Your task to perform on an android device: empty trash in the gmail app Image 0: 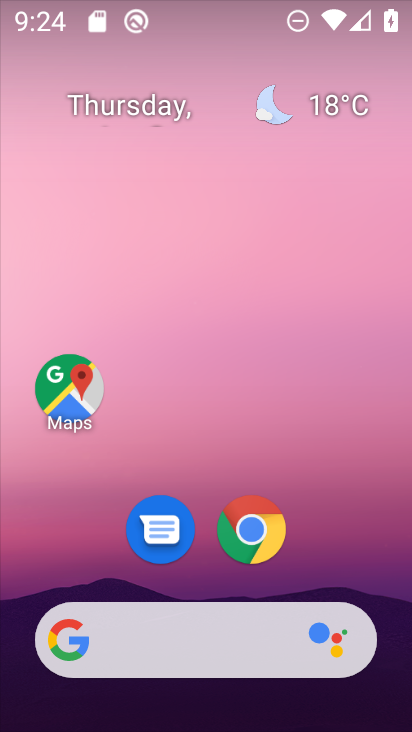
Step 0: drag from (400, 720) to (375, 310)
Your task to perform on an android device: empty trash in the gmail app Image 1: 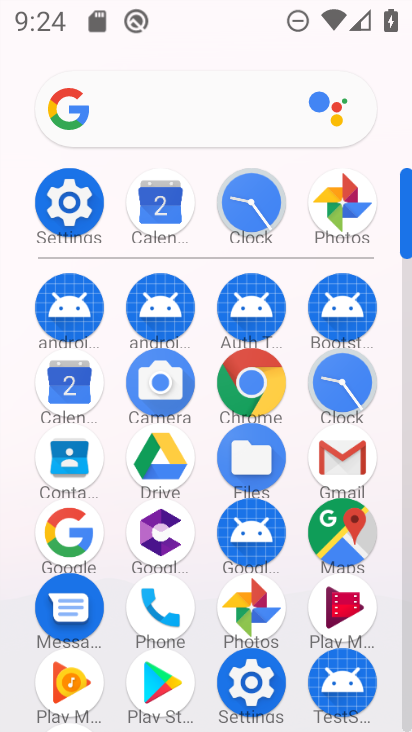
Step 1: click (345, 458)
Your task to perform on an android device: empty trash in the gmail app Image 2: 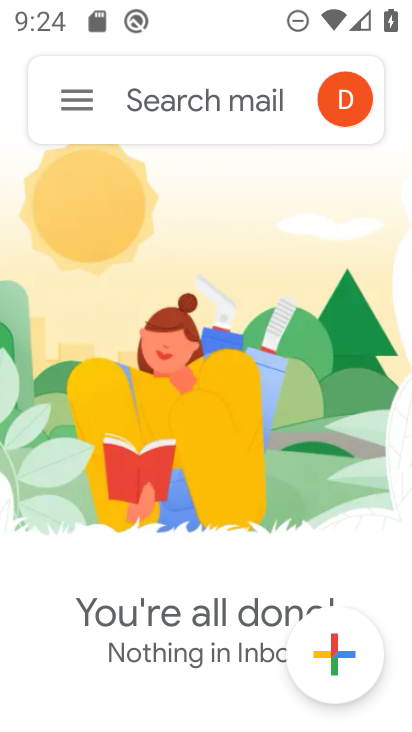
Step 2: click (74, 98)
Your task to perform on an android device: empty trash in the gmail app Image 3: 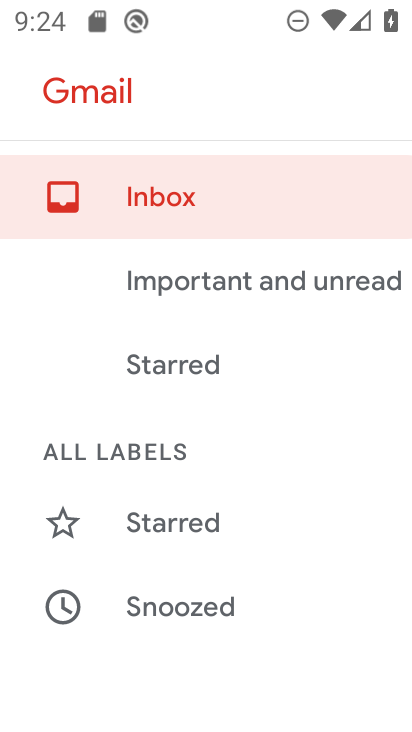
Step 3: drag from (289, 581) to (269, 194)
Your task to perform on an android device: empty trash in the gmail app Image 4: 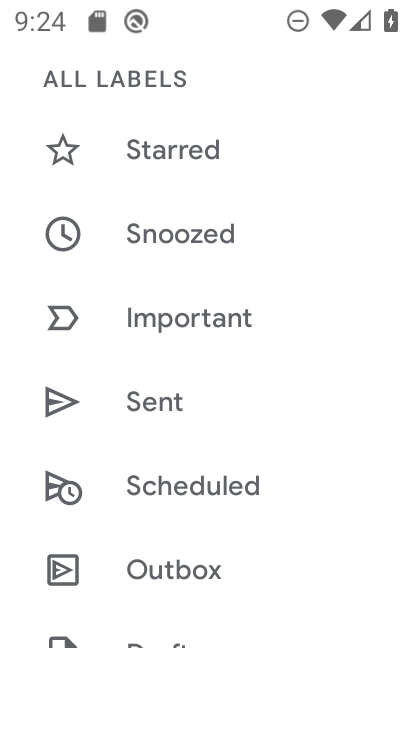
Step 4: drag from (291, 588) to (264, 289)
Your task to perform on an android device: empty trash in the gmail app Image 5: 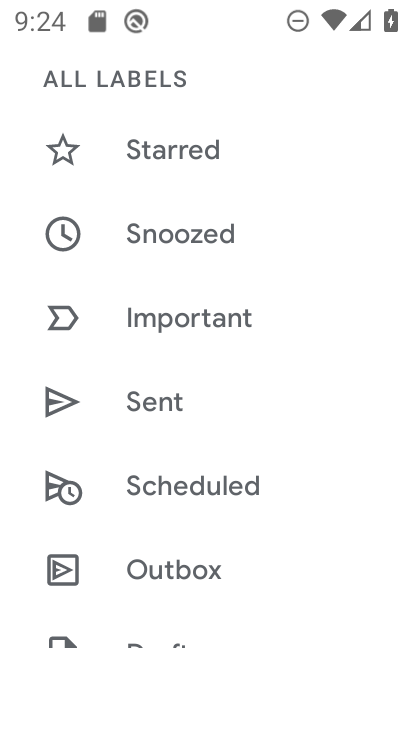
Step 5: drag from (234, 610) to (250, 285)
Your task to perform on an android device: empty trash in the gmail app Image 6: 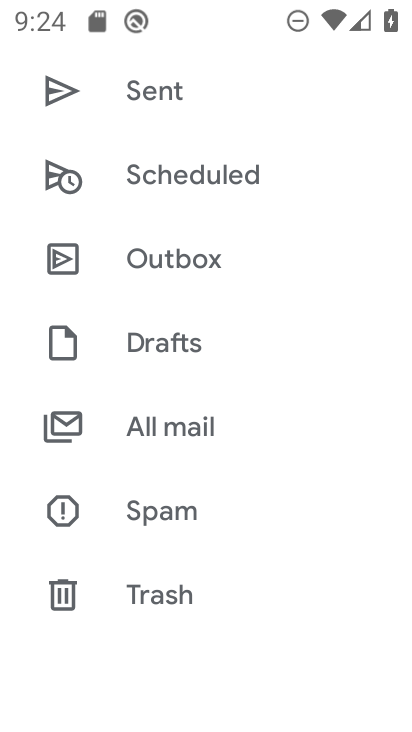
Step 6: click (153, 595)
Your task to perform on an android device: empty trash in the gmail app Image 7: 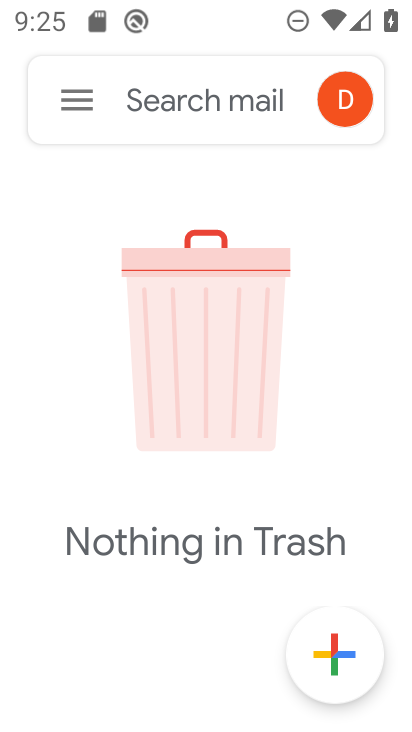
Step 7: task complete